Your task to perform on an android device: uninstall "Skype" Image 0: 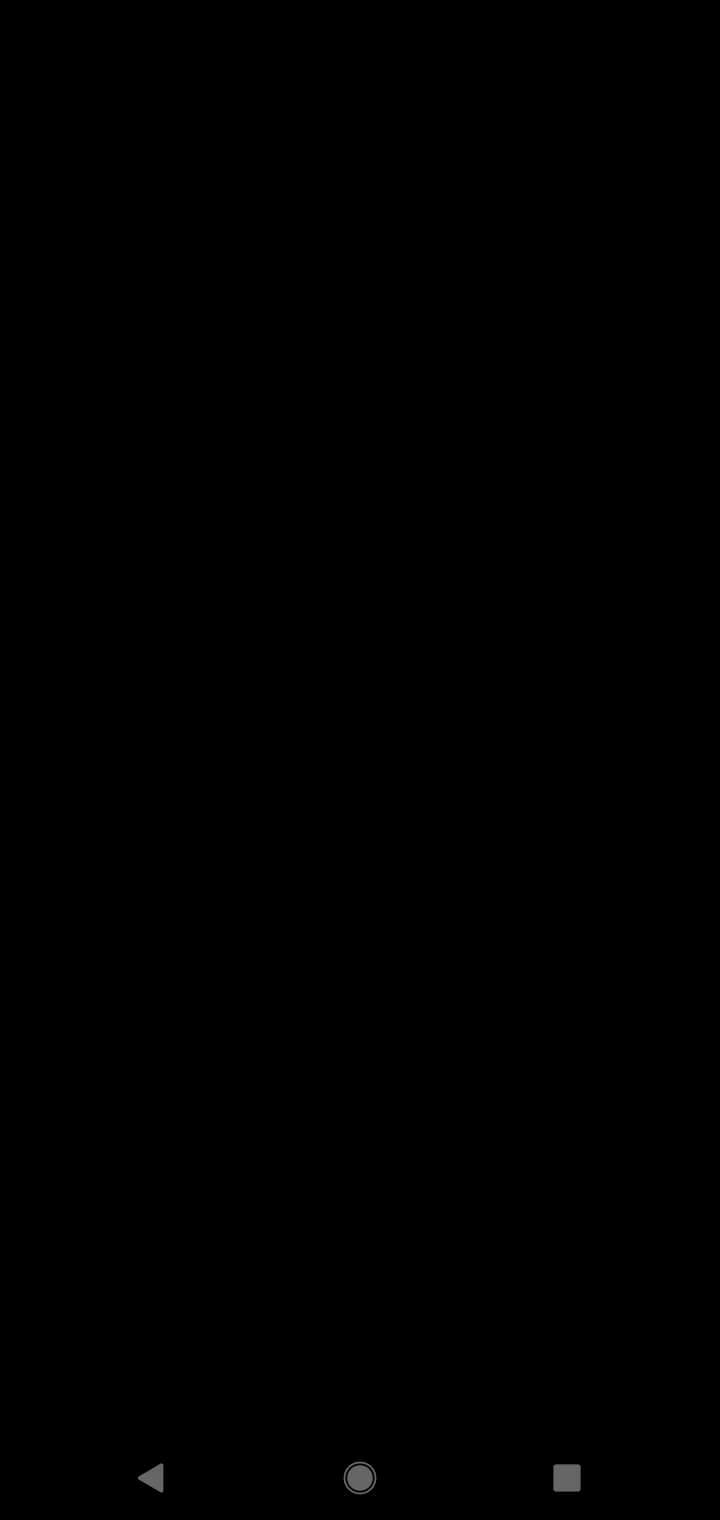
Step 0: press home button
Your task to perform on an android device: uninstall "Skype" Image 1: 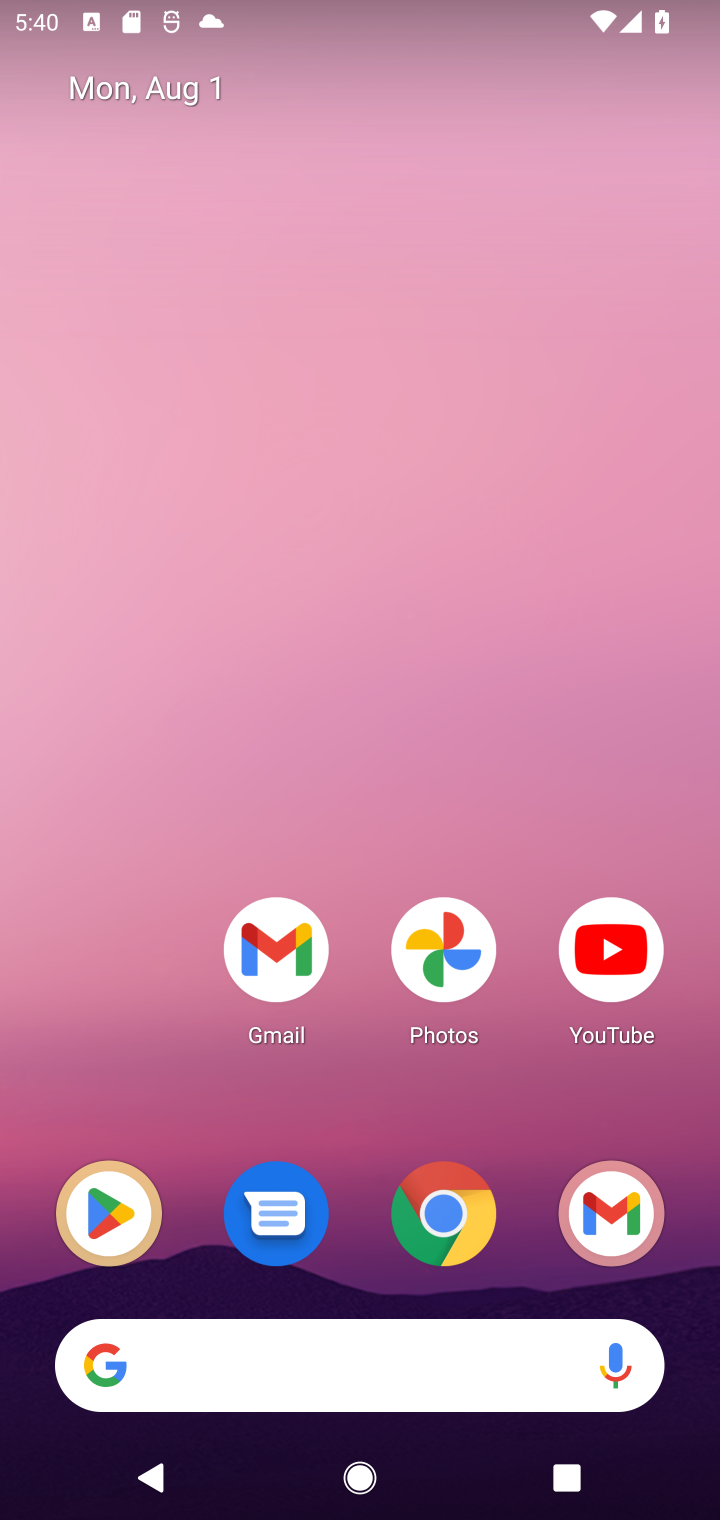
Step 1: press home button
Your task to perform on an android device: uninstall "Skype" Image 2: 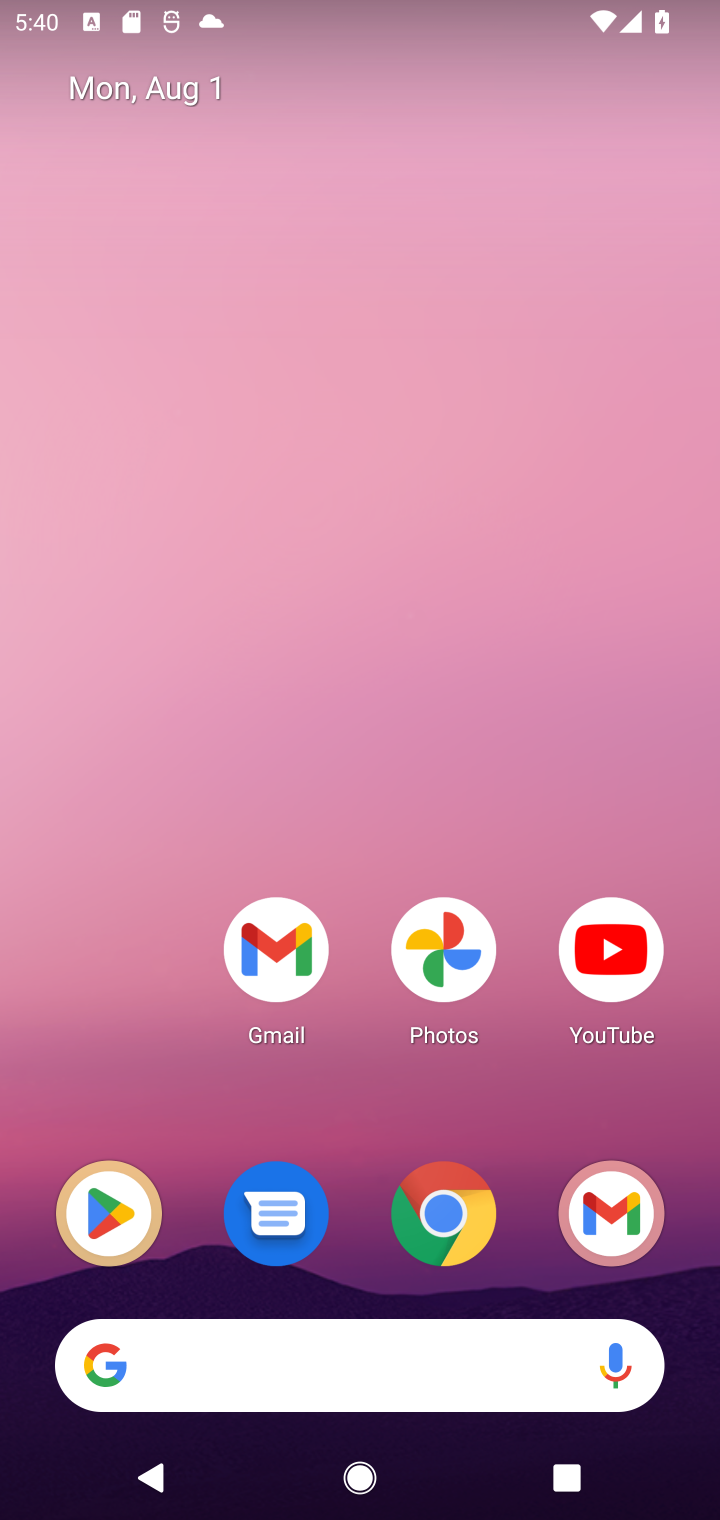
Step 2: drag from (565, 950) to (645, 174)
Your task to perform on an android device: uninstall "Skype" Image 3: 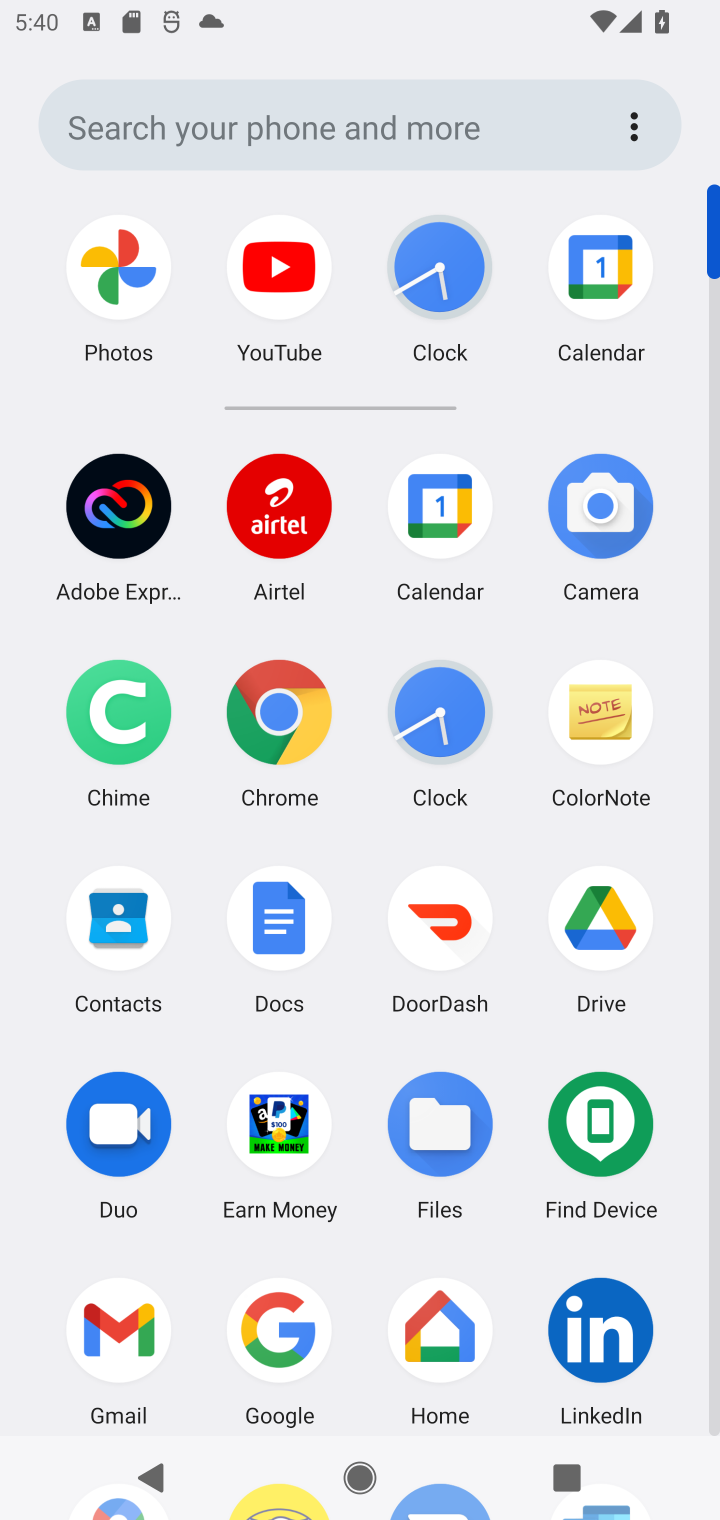
Step 3: drag from (361, 1284) to (393, 229)
Your task to perform on an android device: uninstall "Skype" Image 4: 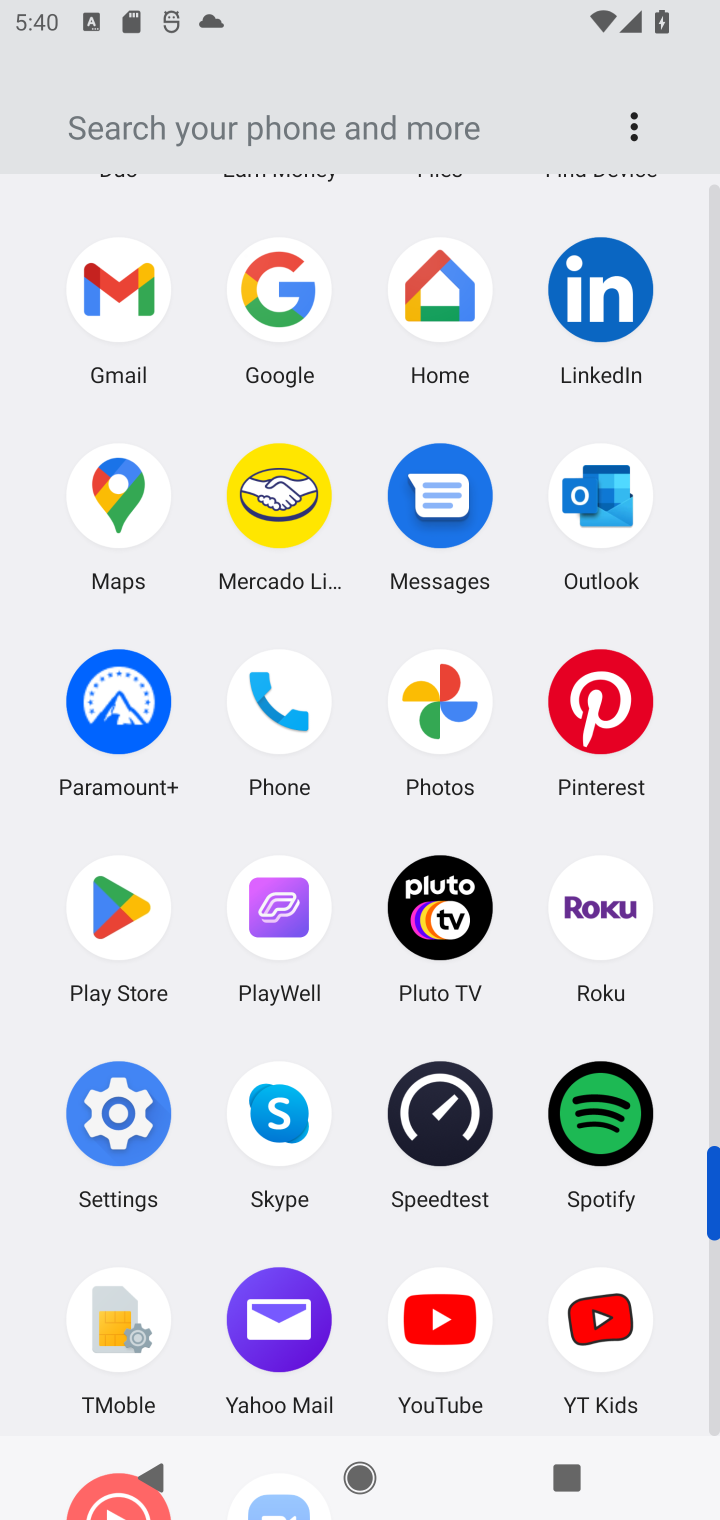
Step 4: click (113, 929)
Your task to perform on an android device: uninstall "Skype" Image 5: 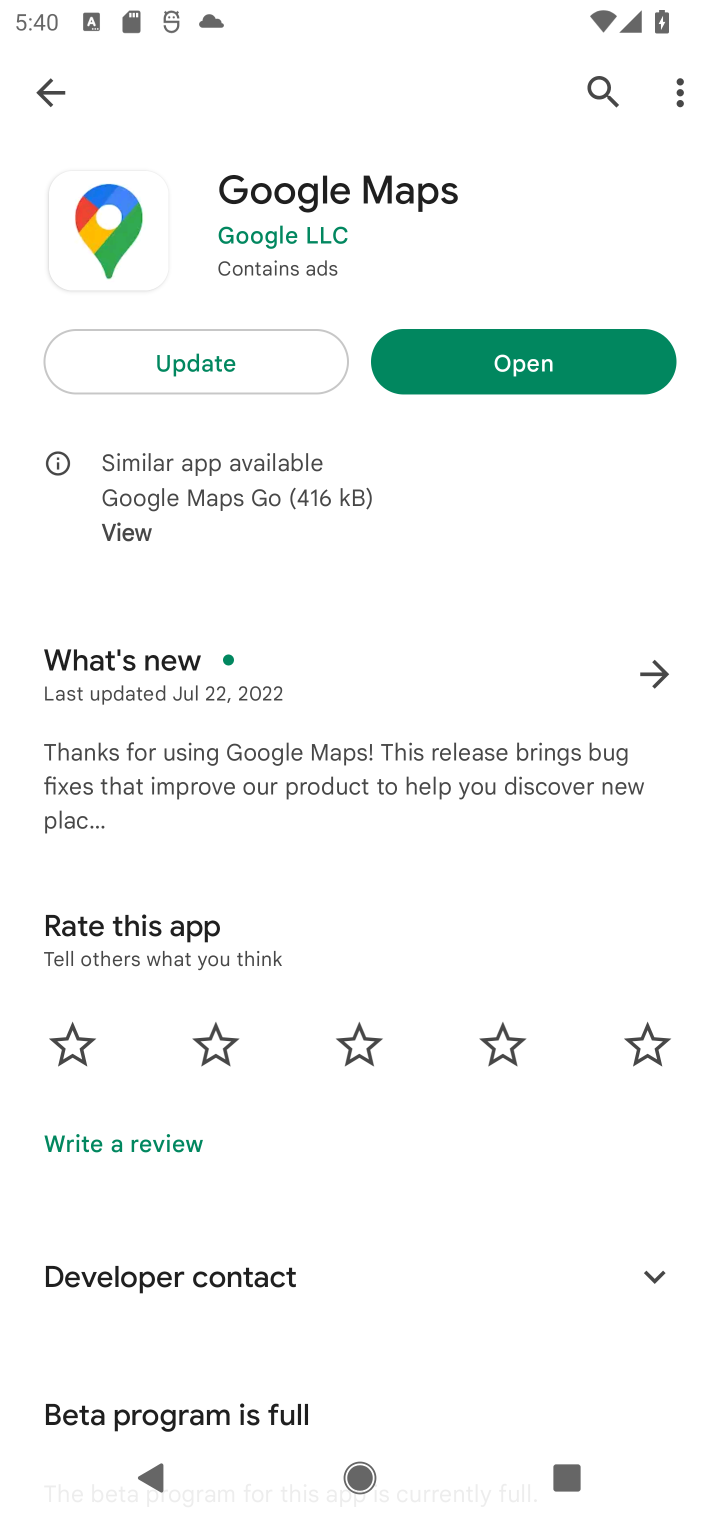
Step 5: click (592, 89)
Your task to perform on an android device: uninstall "Skype" Image 6: 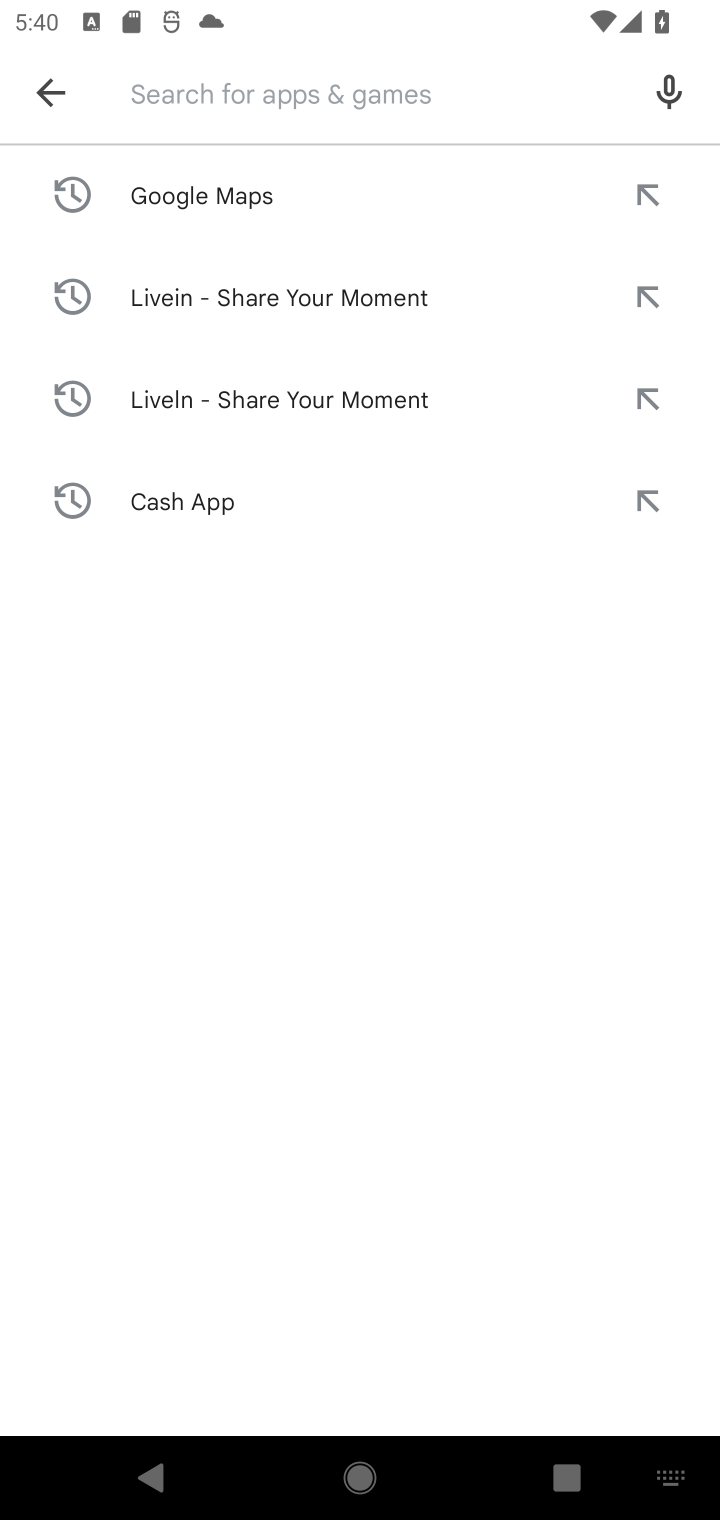
Step 6: type ""
Your task to perform on an android device: uninstall "Skype" Image 7: 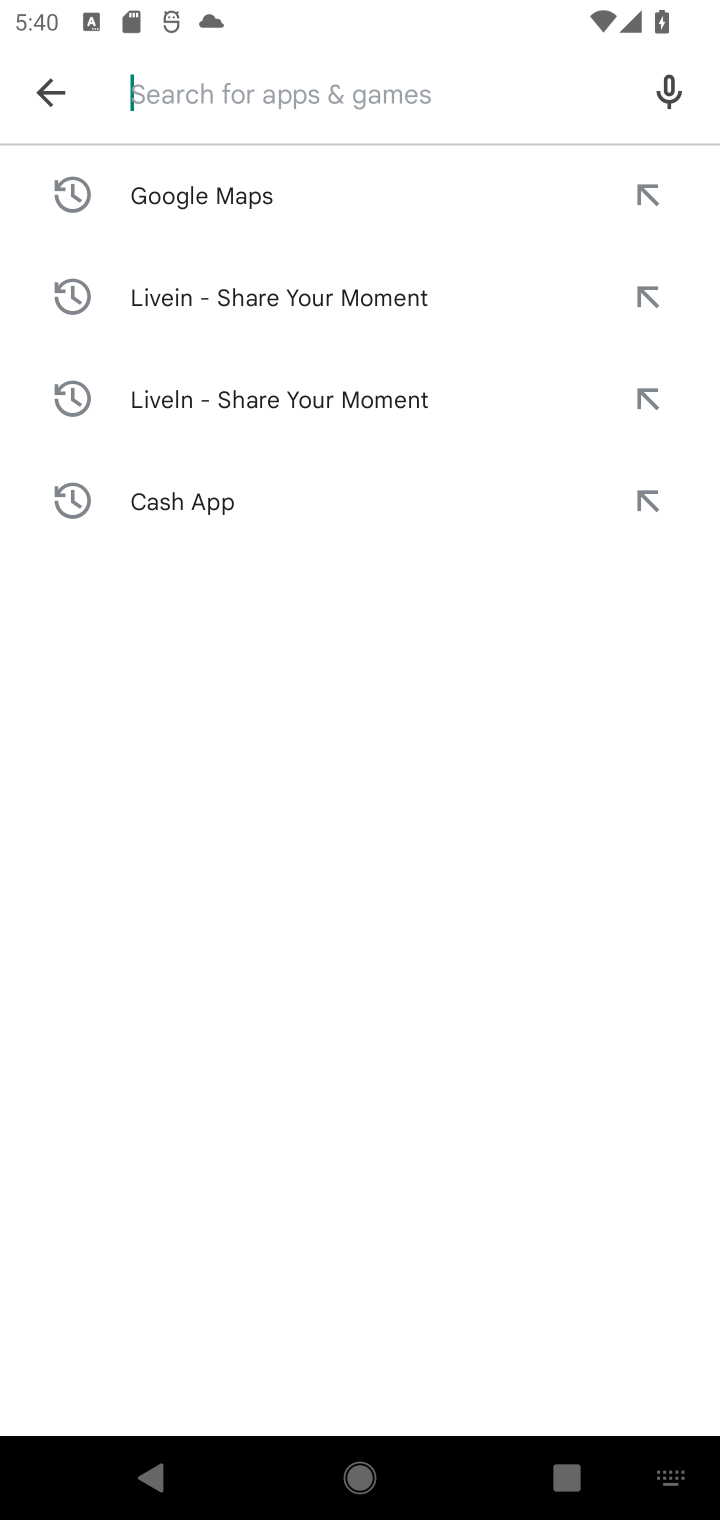
Step 7: type "Skype"
Your task to perform on an android device: uninstall "Skype" Image 8: 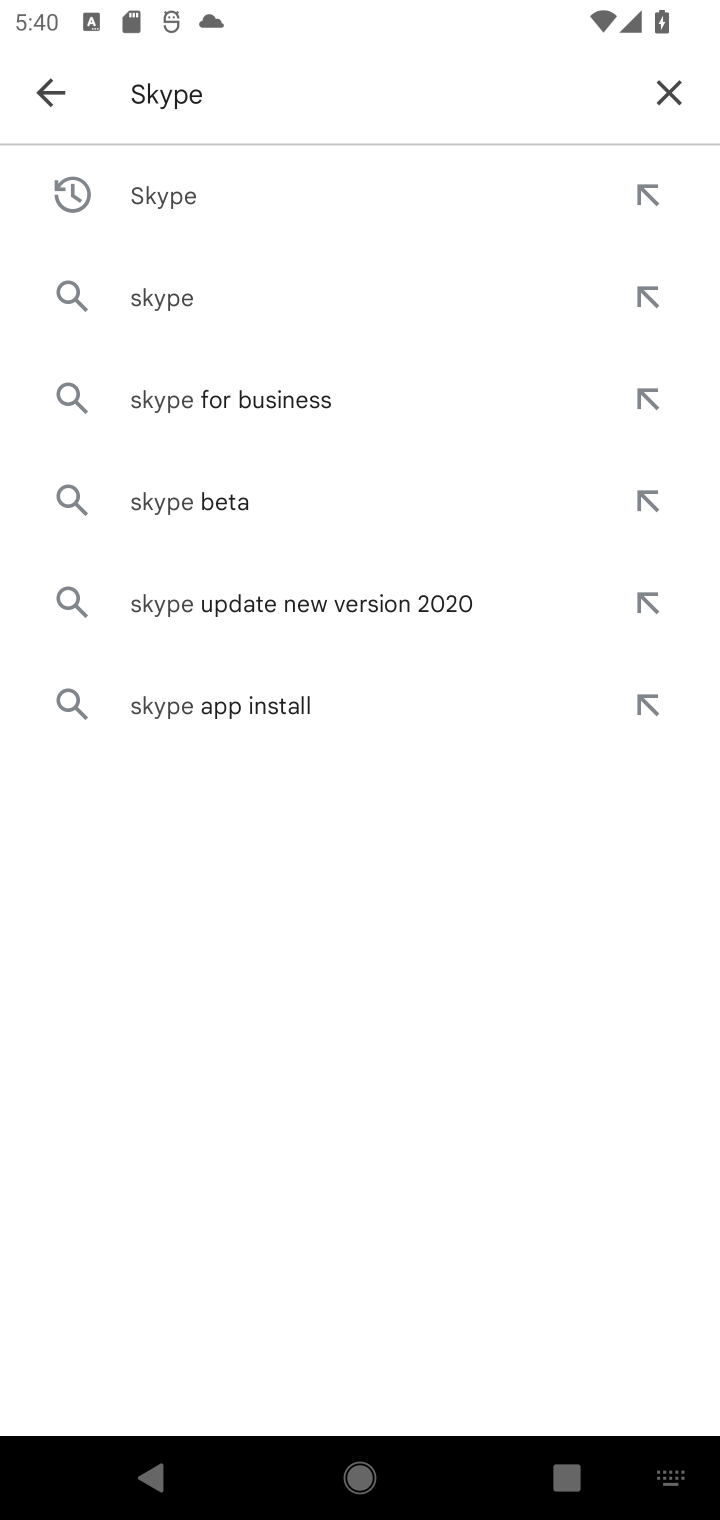
Step 8: press enter
Your task to perform on an android device: uninstall "Skype" Image 9: 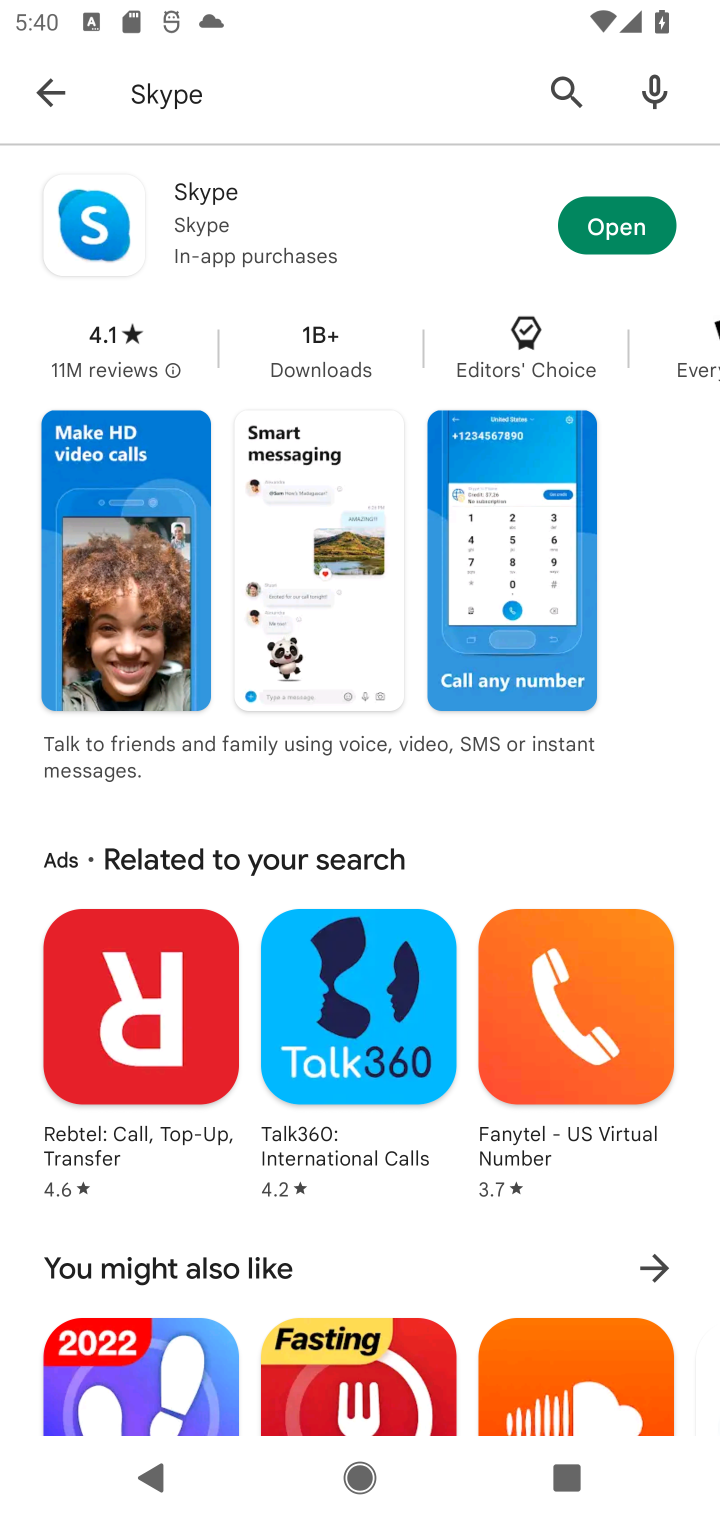
Step 9: click (358, 243)
Your task to perform on an android device: uninstall "Skype" Image 10: 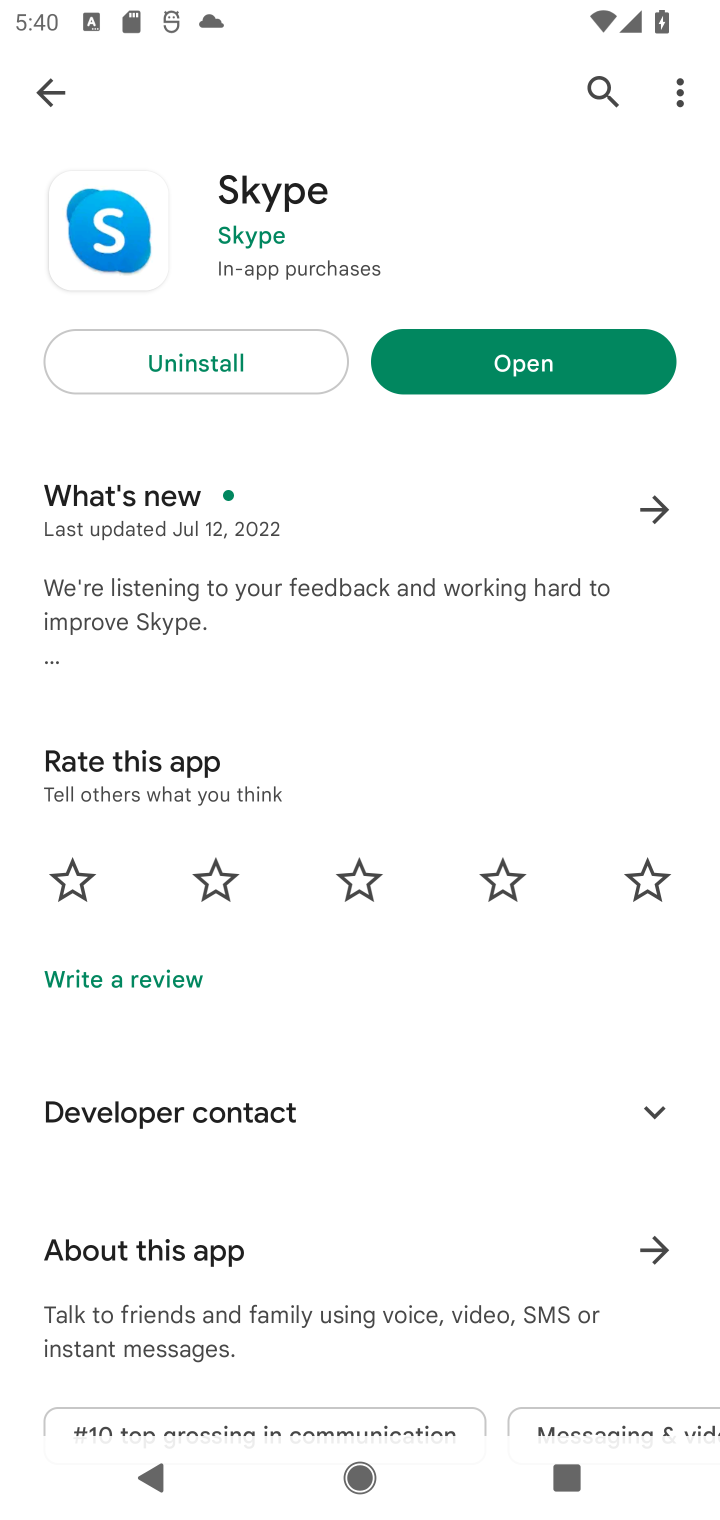
Step 10: click (198, 378)
Your task to perform on an android device: uninstall "Skype" Image 11: 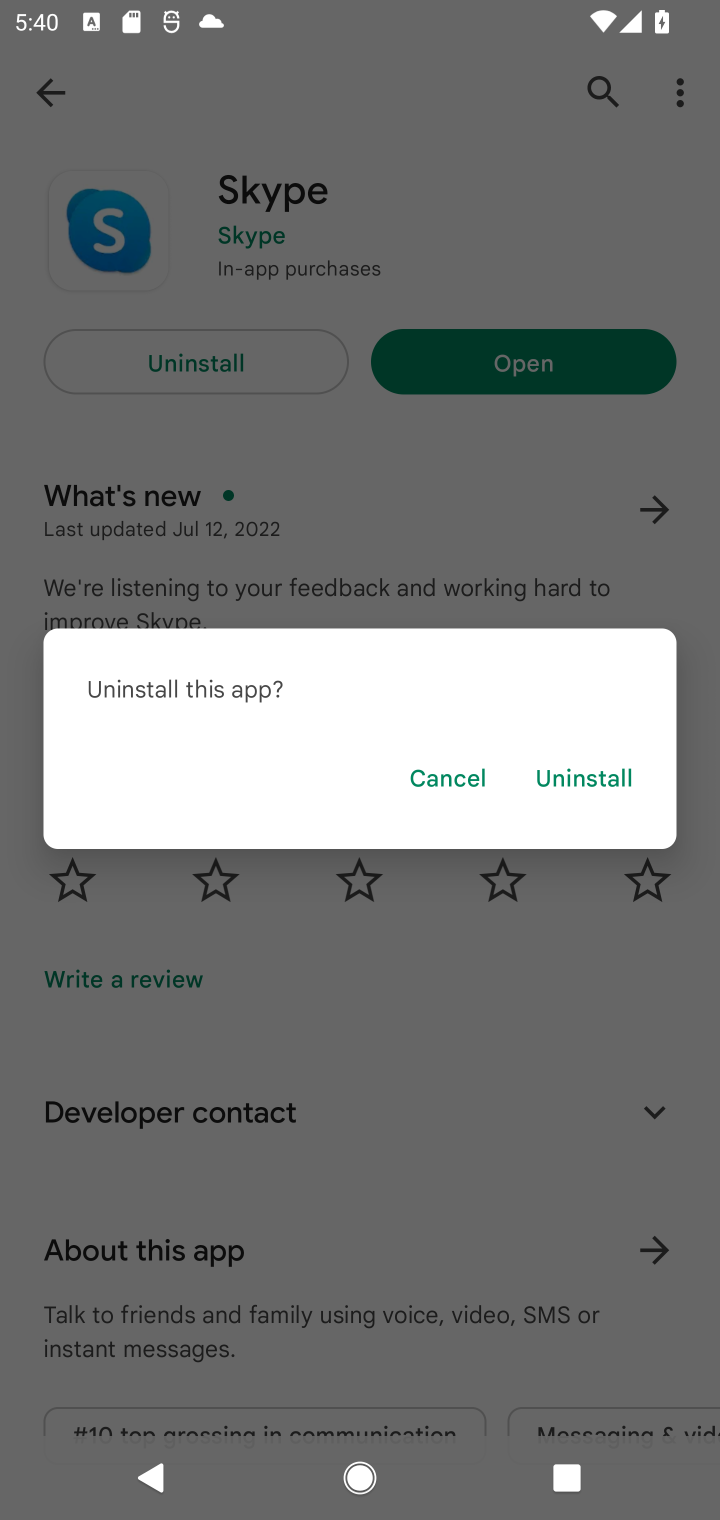
Step 11: click (626, 747)
Your task to perform on an android device: uninstall "Skype" Image 12: 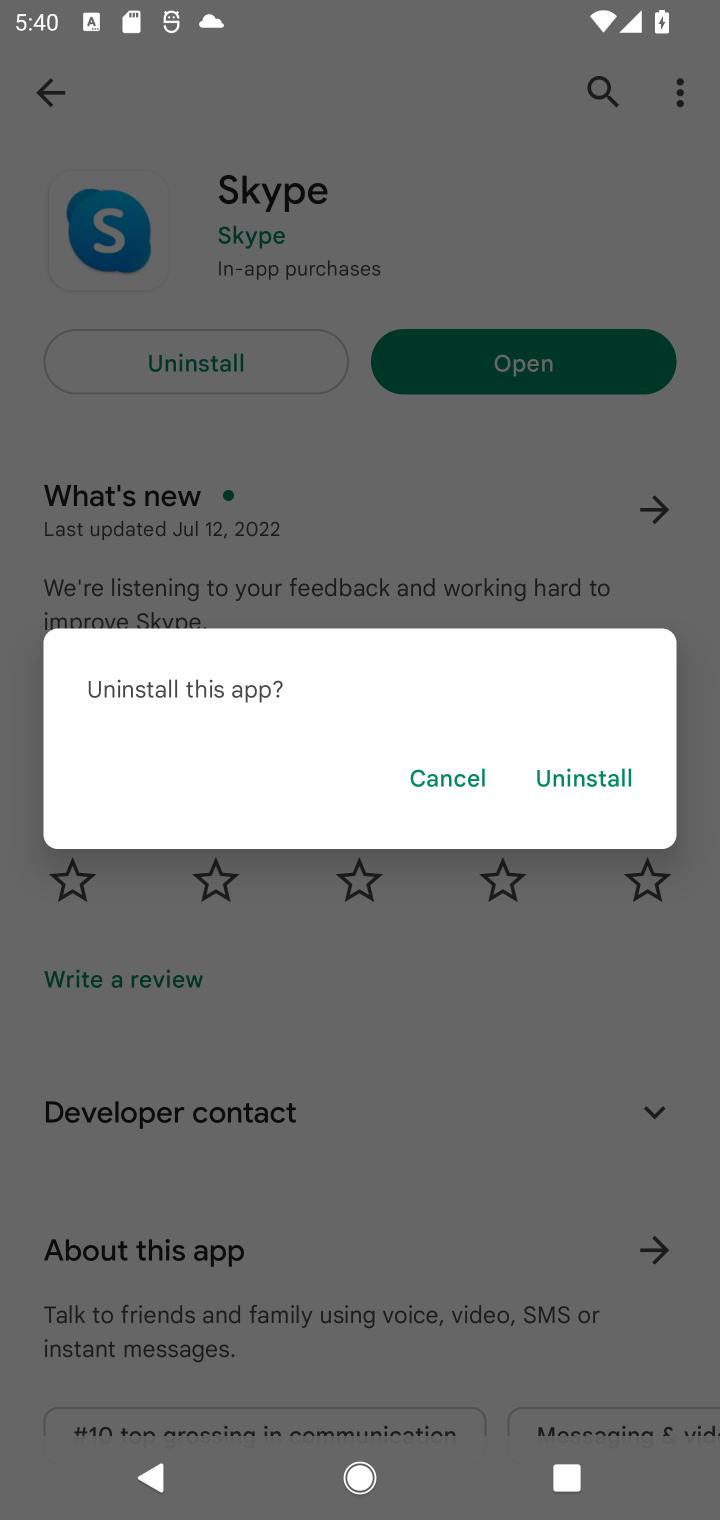
Step 12: click (616, 764)
Your task to perform on an android device: uninstall "Skype" Image 13: 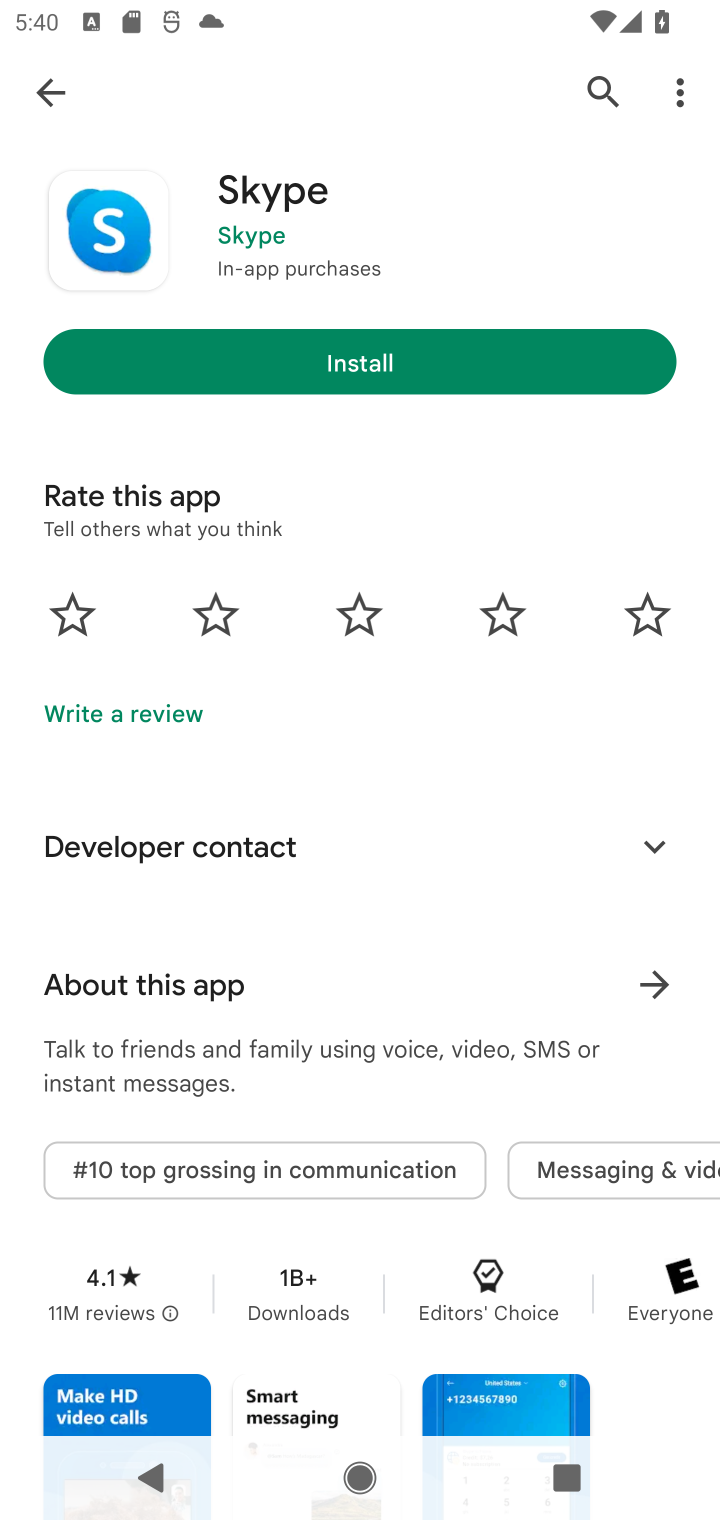
Step 13: task complete